Your task to perform on an android device: toggle notification dots Image 0: 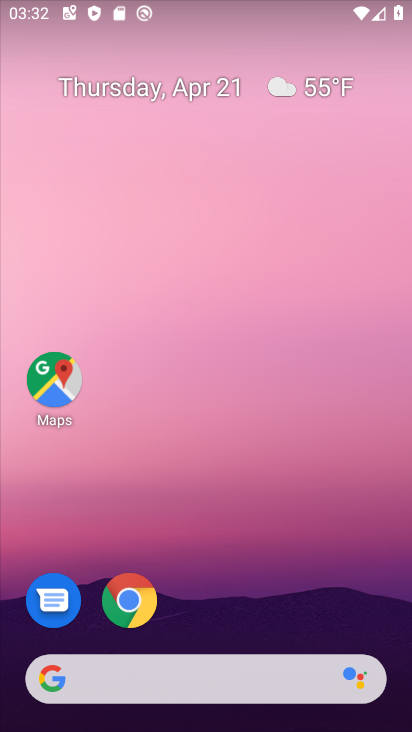
Step 0: drag from (244, 579) to (295, 119)
Your task to perform on an android device: toggle notification dots Image 1: 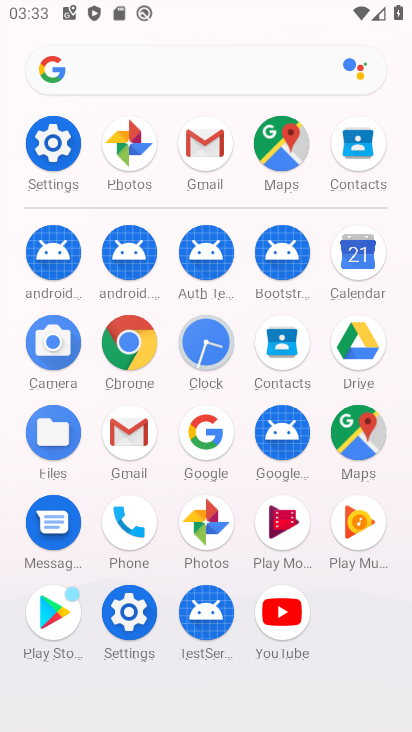
Step 1: click (53, 150)
Your task to perform on an android device: toggle notification dots Image 2: 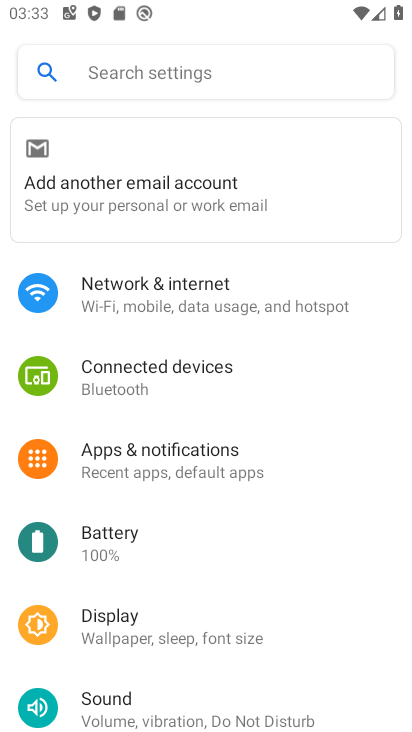
Step 2: click (177, 474)
Your task to perform on an android device: toggle notification dots Image 3: 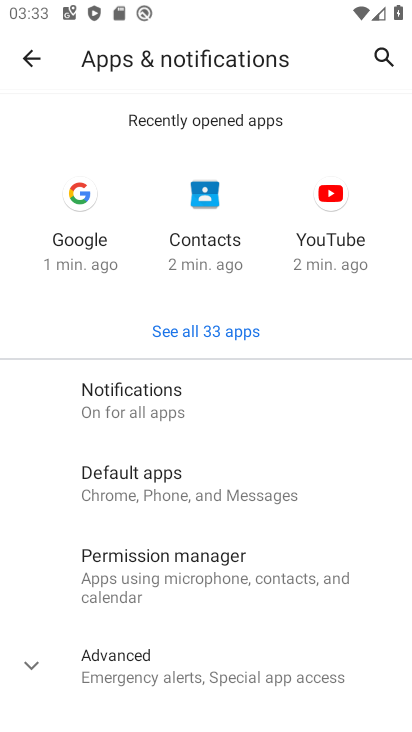
Step 3: click (158, 414)
Your task to perform on an android device: toggle notification dots Image 4: 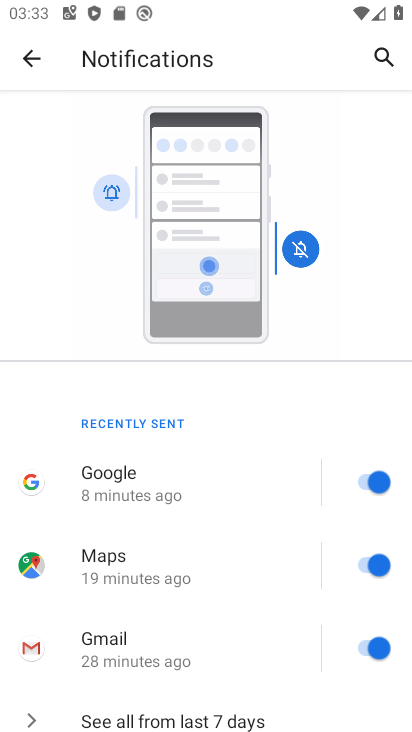
Step 4: drag from (247, 538) to (277, 361)
Your task to perform on an android device: toggle notification dots Image 5: 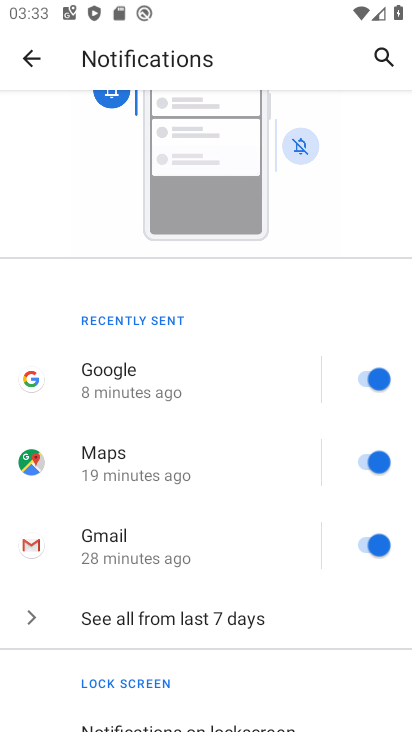
Step 5: drag from (226, 622) to (225, 394)
Your task to perform on an android device: toggle notification dots Image 6: 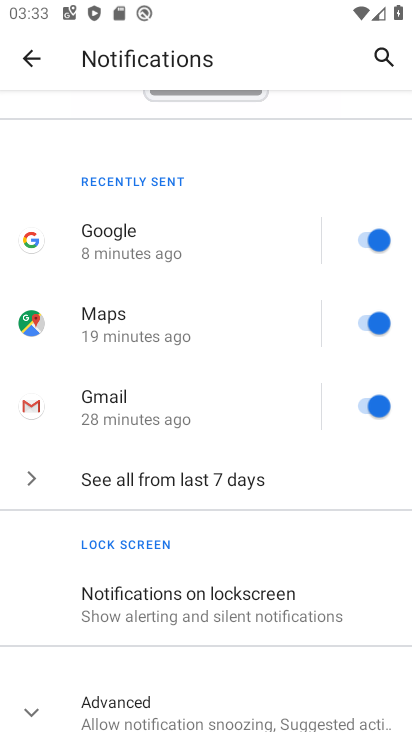
Step 6: click (175, 696)
Your task to perform on an android device: toggle notification dots Image 7: 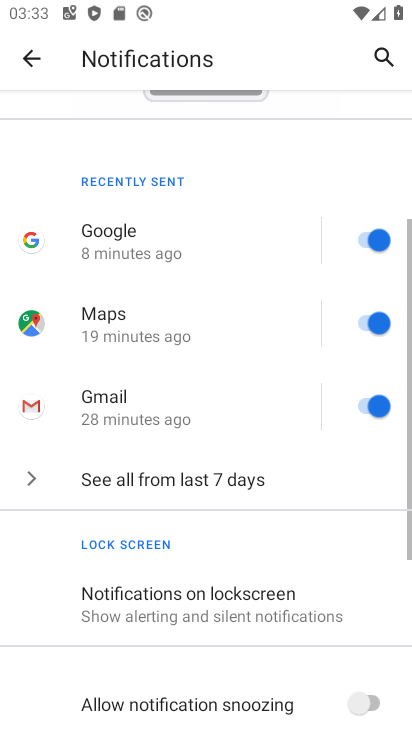
Step 7: drag from (211, 574) to (221, 443)
Your task to perform on an android device: toggle notification dots Image 8: 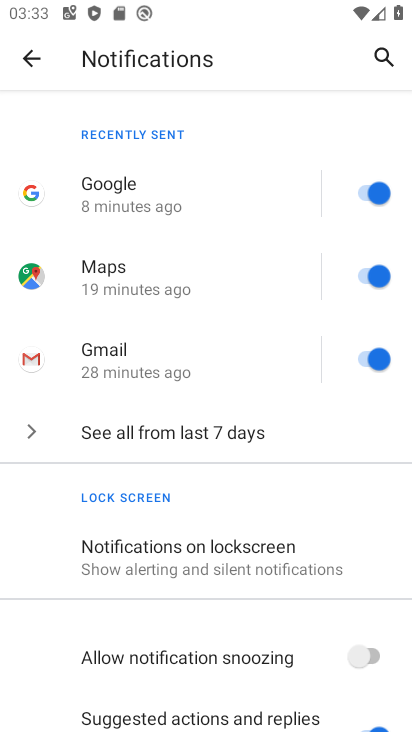
Step 8: drag from (202, 653) to (204, 471)
Your task to perform on an android device: toggle notification dots Image 9: 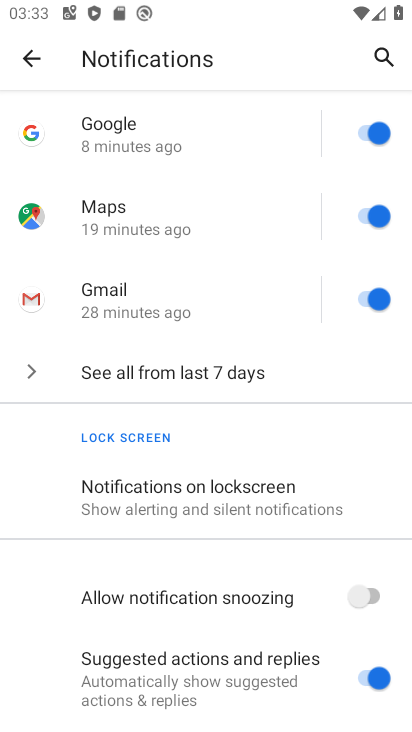
Step 9: drag from (259, 650) to (245, 463)
Your task to perform on an android device: toggle notification dots Image 10: 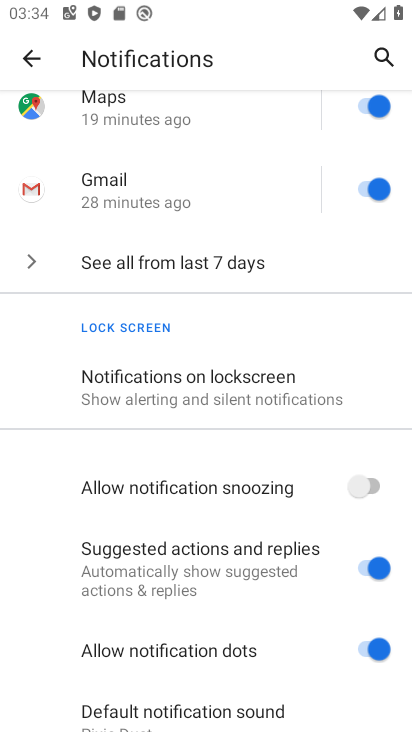
Step 10: click (350, 649)
Your task to perform on an android device: toggle notification dots Image 11: 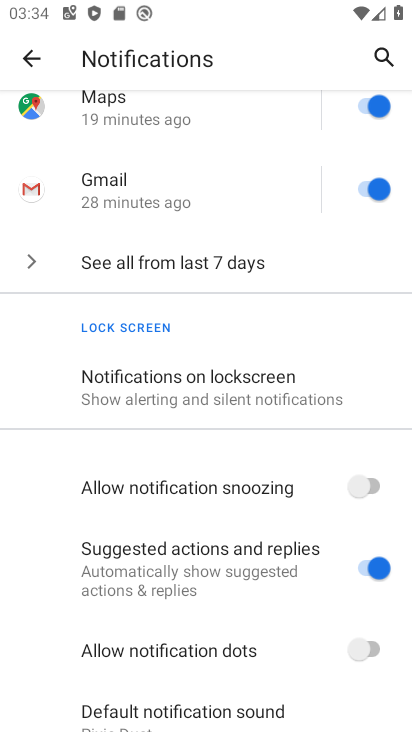
Step 11: task complete